Your task to perform on an android device: turn off improve location accuracy Image 0: 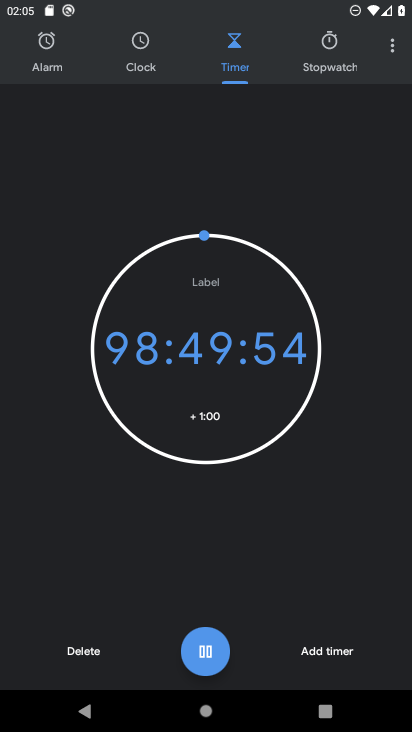
Step 0: press home button
Your task to perform on an android device: turn off improve location accuracy Image 1: 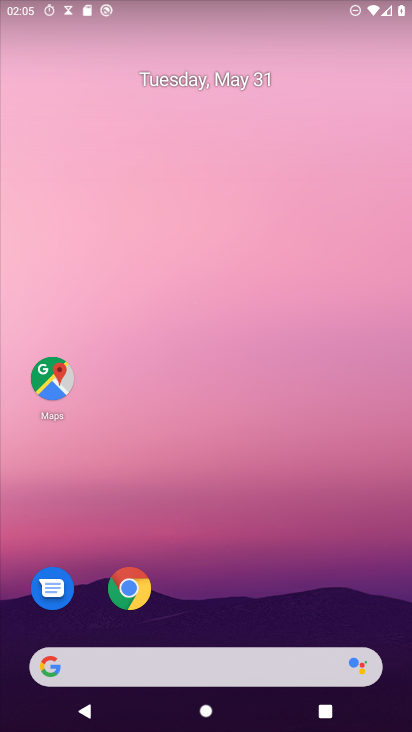
Step 1: drag from (289, 648) to (408, 162)
Your task to perform on an android device: turn off improve location accuracy Image 2: 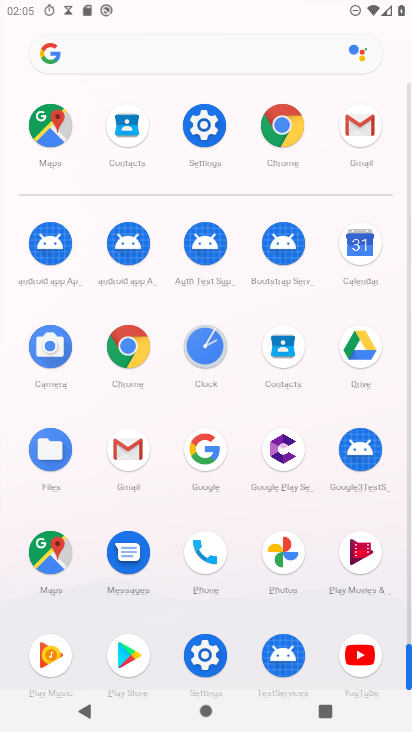
Step 2: click (205, 130)
Your task to perform on an android device: turn off improve location accuracy Image 3: 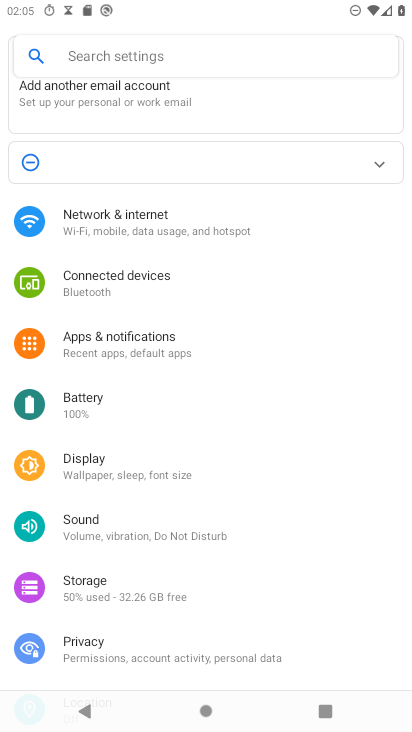
Step 3: drag from (144, 631) to (145, 204)
Your task to perform on an android device: turn off improve location accuracy Image 4: 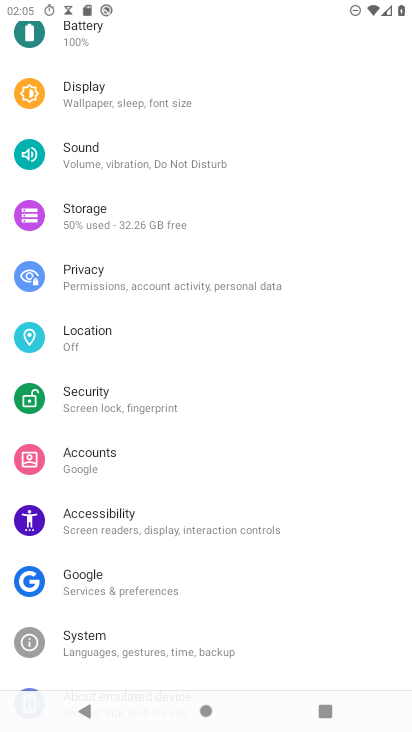
Step 4: click (114, 340)
Your task to perform on an android device: turn off improve location accuracy Image 5: 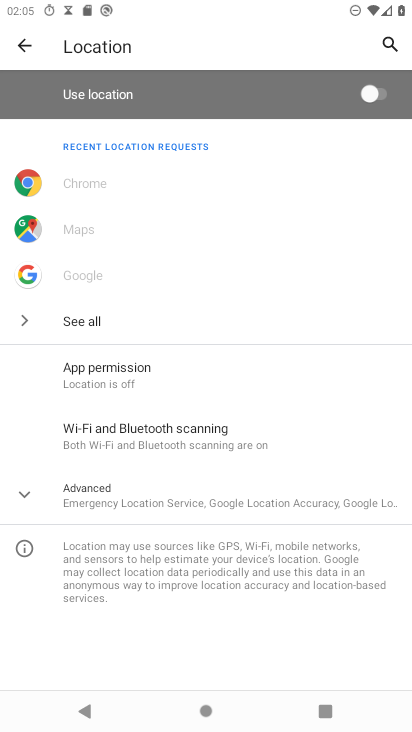
Step 5: click (262, 499)
Your task to perform on an android device: turn off improve location accuracy Image 6: 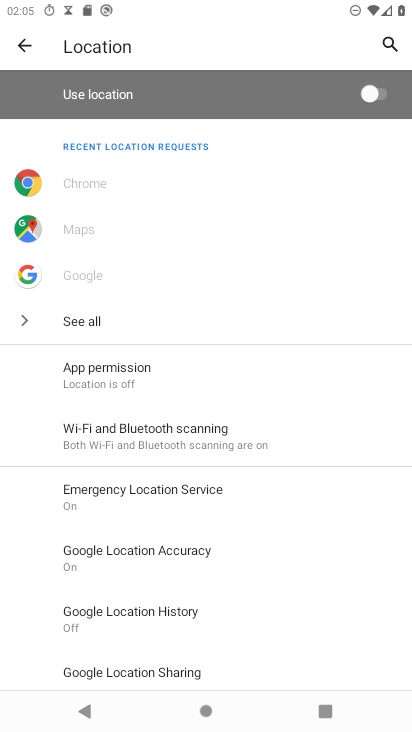
Step 6: click (162, 546)
Your task to perform on an android device: turn off improve location accuracy Image 7: 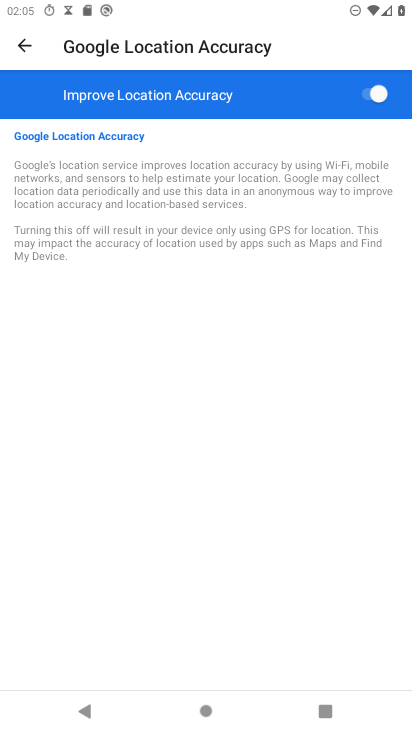
Step 7: click (365, 96)
Your task to perform on an android device: turn off improve location accuracy Image 8: 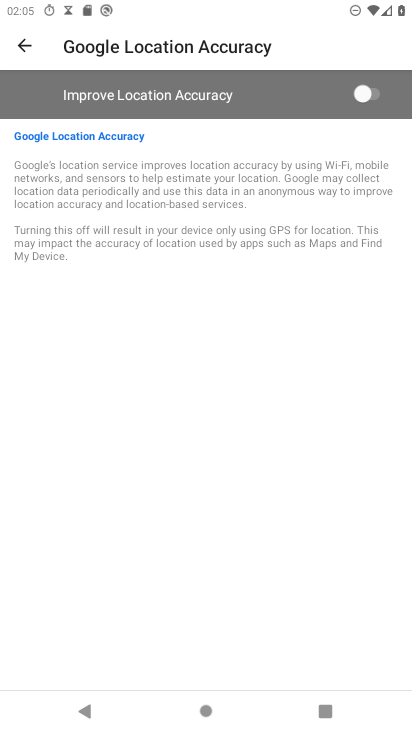
Step 8: task complete